Your task to perform on an android device: toggle airplane mode Image 0: 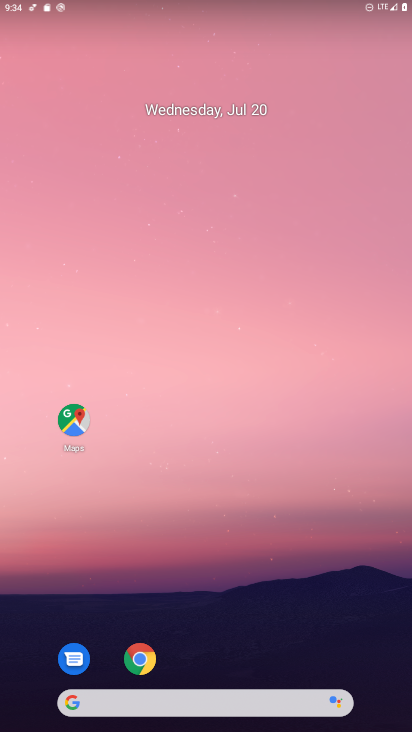
Step 0: drag from (286, 613) to (268, 10)
Your task to perform on an android device: toggle airplane mode Image 1: 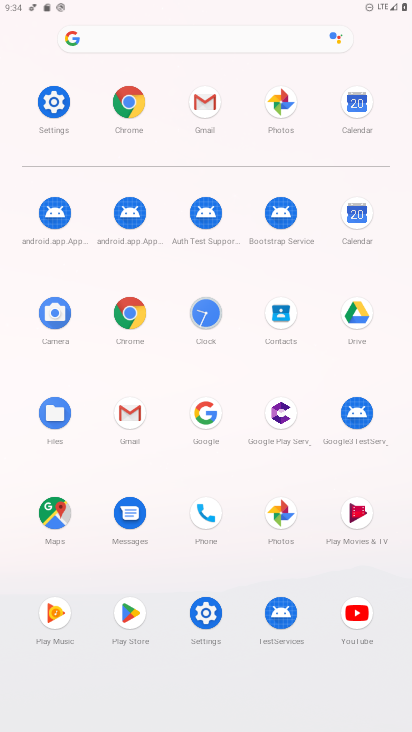
Step 1: click (49, 95)
Your task to perform on an android device: toggle airplane mode Image 2: 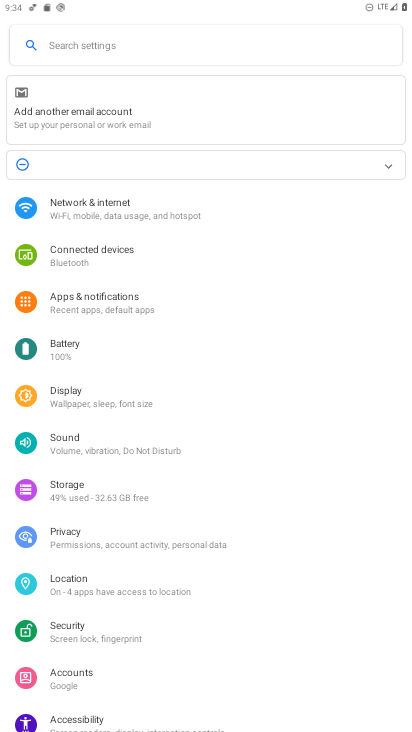
Step 2: click (115, 215)
Your task to perform on an android device: toggle airplane mode Image 3: 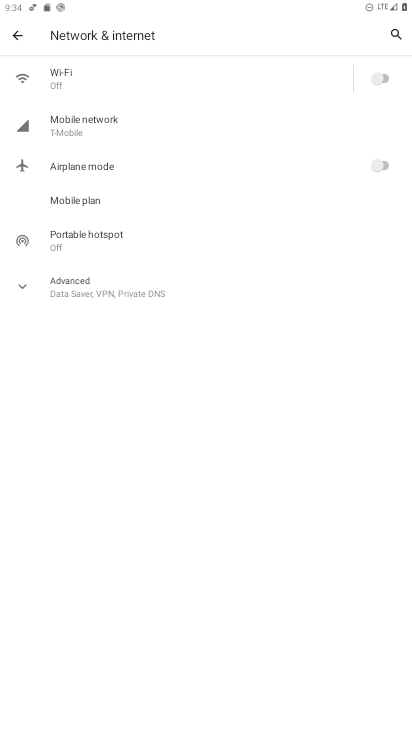
Step 3: click (381, 164)
Your task to perform on an android device: toggle airplane mode Image 4: 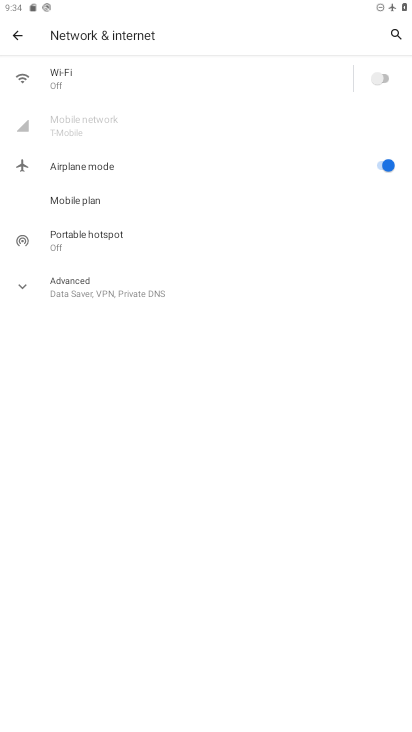
Step 4: task complete